Your task to perform on an android device: turn on priority inbox in the gmail app Image 0: 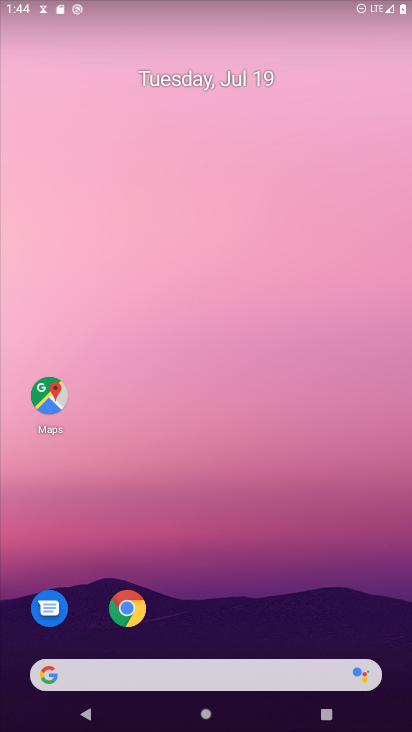
Step 0: drag from (137, 629) to (291, 0)
Your task to perform on an android device: turn on priority inbox in the gmail app Image 1: 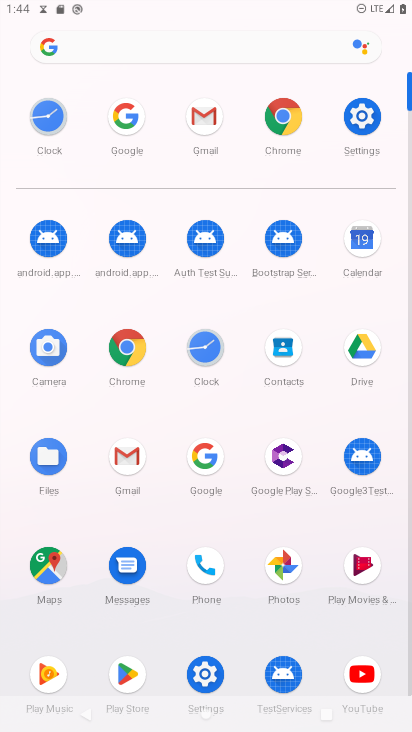
Step 1: click (123, 454)
Your task to perform on an android device: turn on priority inbox in the gmail app Image 2: 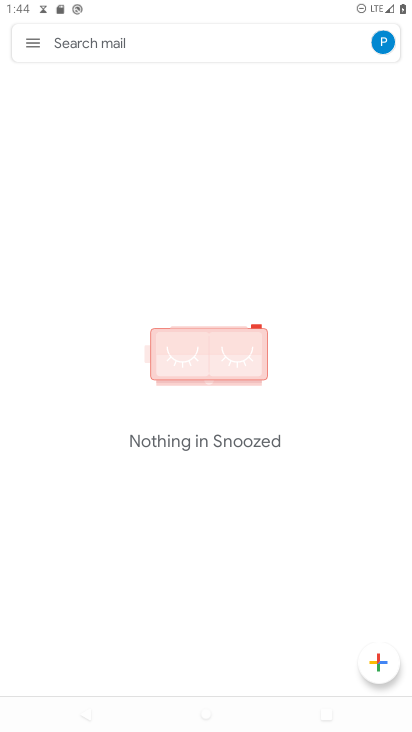
Step 2: click (34, 42)
Your task to perform on an android device: turn on priority inbox in the gmail app Image 3: 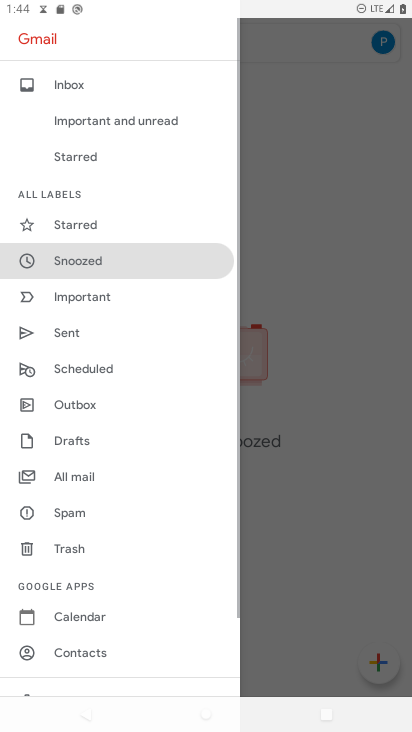
Step 3: drag from (124, 631) to (235, 114)
Your task to perform on an android device: turn on priority inbox in the gmail app Image 4: 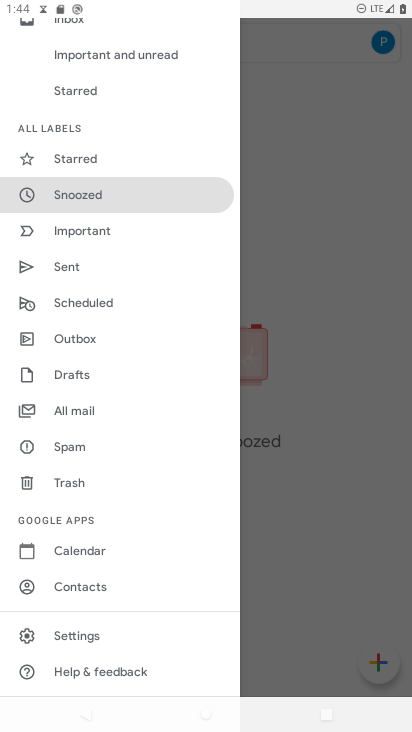
Step 4: click (89, 633)
Your task to perform on an android device: turn on priority inbox in the gmail app Image 5: 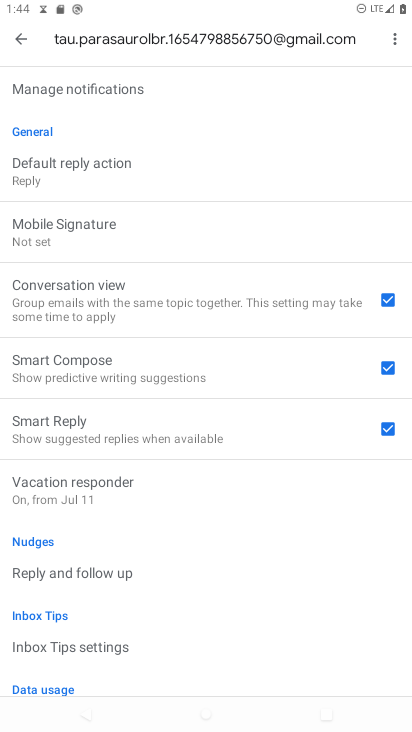
Step 5: drag from (76, 127) to (75, 581)
Your task to perform on an android device: turn on priority inbox in the gmail app Image 6: 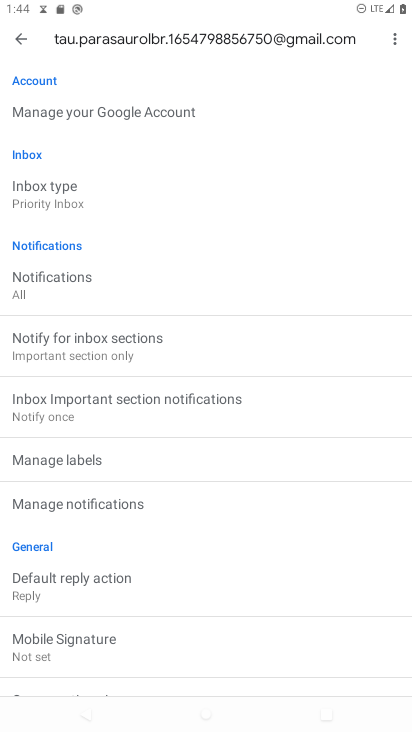
Step 6: click (117, 198)
Your task to perform on an android device: turn on priority inbox in the gmail app Image 7: 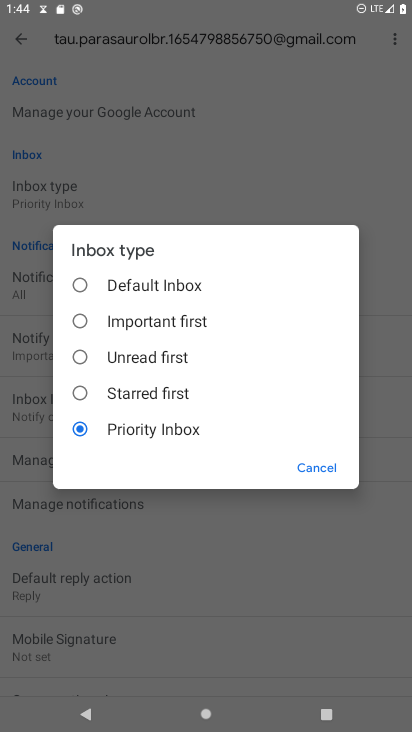
Step 7: click (157, 283)
Your task to perform on an android device: turn on priority inbox in the gmail app Image 8: 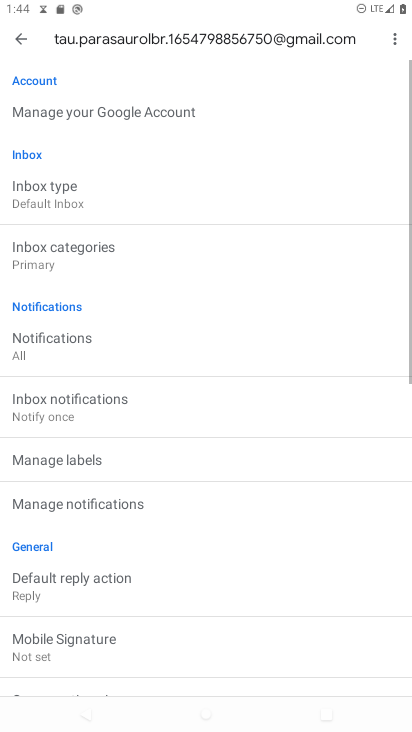
Step 8: task complete